Your task to perform on an android device: Go to notification settings Image 0: 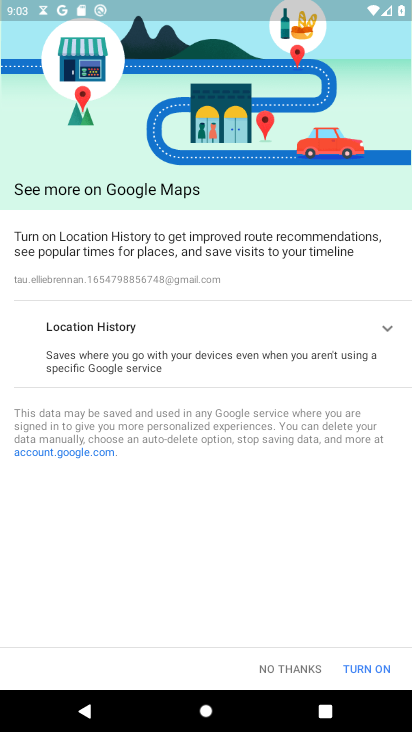
Step 0: press home button
Your task to perform on an android device: Go to notification settings Image 1: 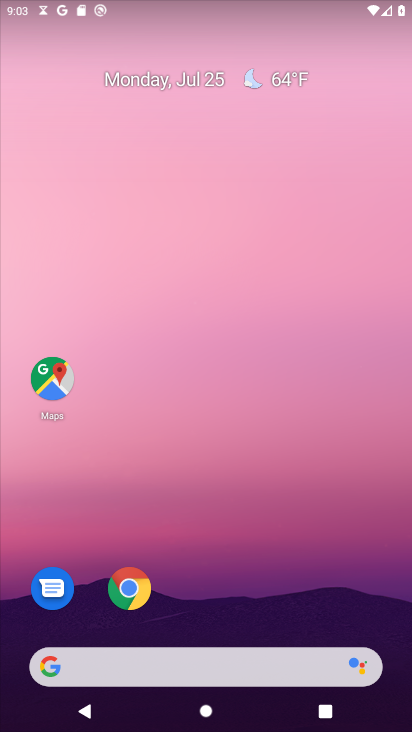
Step 1: drag from (209, 670) to (219, 158)
Your task to perform on an android device: Go to notification settings Image 2: 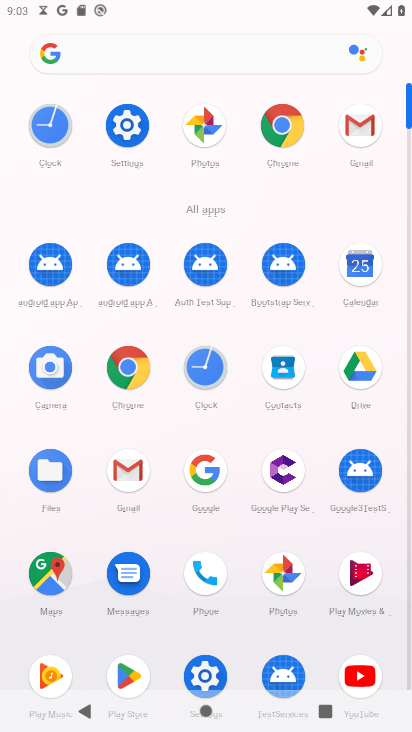
Step 2: click (133, 133)
Your task to perform on an android device: Go to notification settings Image 3: 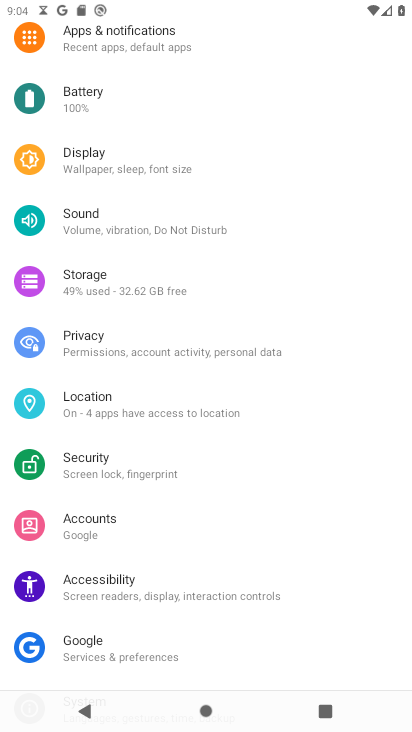
Step 3: click (98, 54)
Your task to perform on an android device: Go to notification settings Image 4: 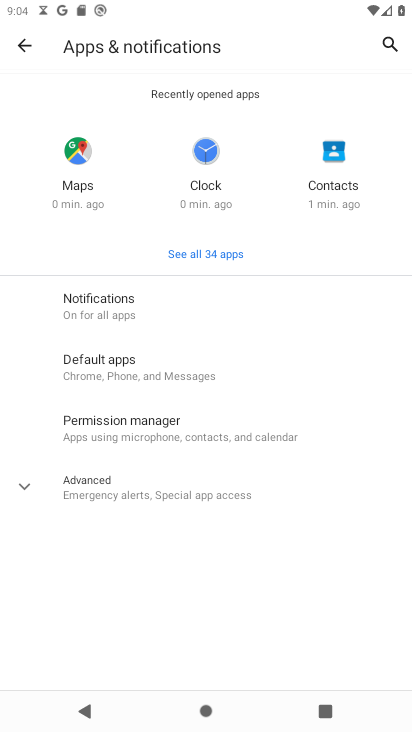
Step 4: task complete